Your task to perform on an android device: Open maps Image 0: 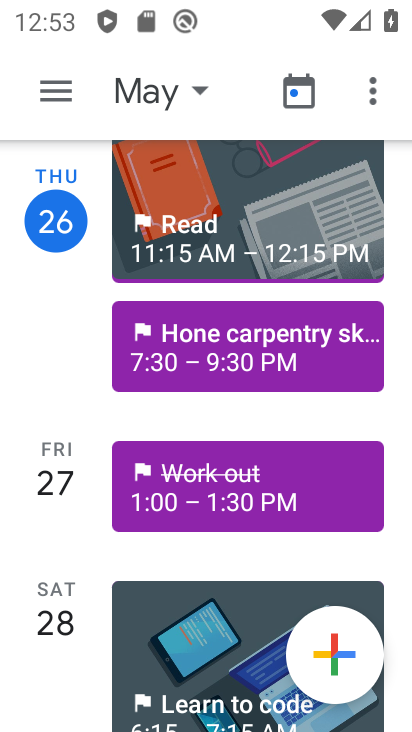
Step 0: press home button
Your task to perform on an android device: Open maps Image 1: 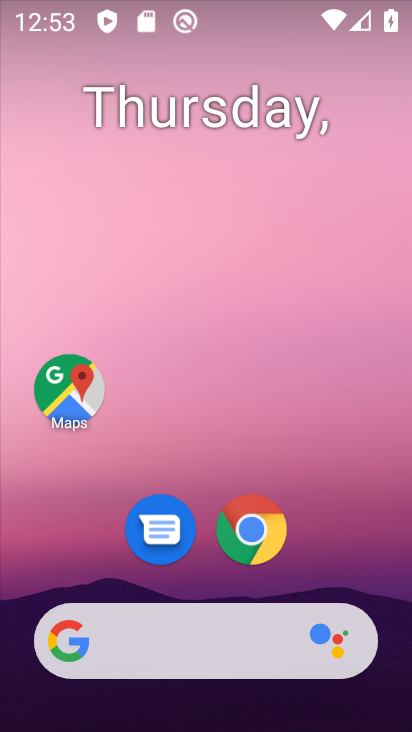
Step 1: drag from (385, 524) to (329, 99)
Your task to perform on an android device: Open maps Image 2: 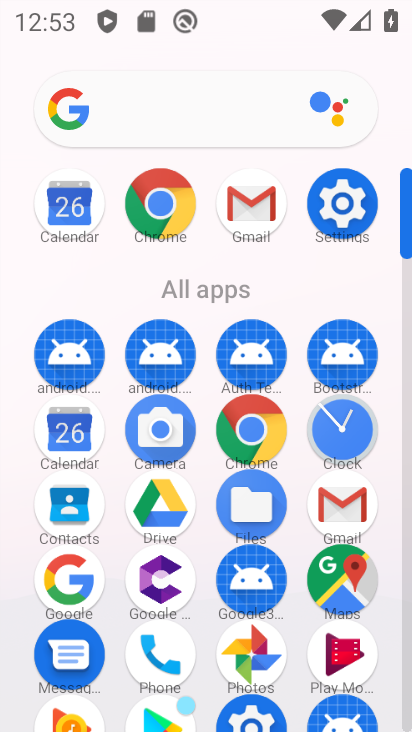
Step 2: click (346, 606)
Your task to perform on an android device: Open maps Image 3: 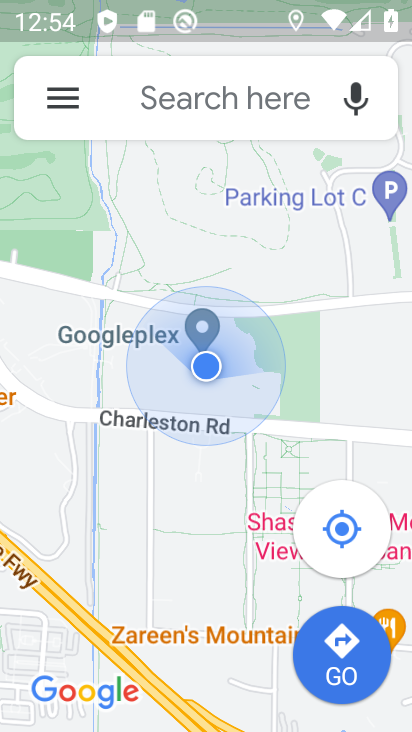
Step 3: task complete